Your task to perform on an android device: Open Android settings Image 0: 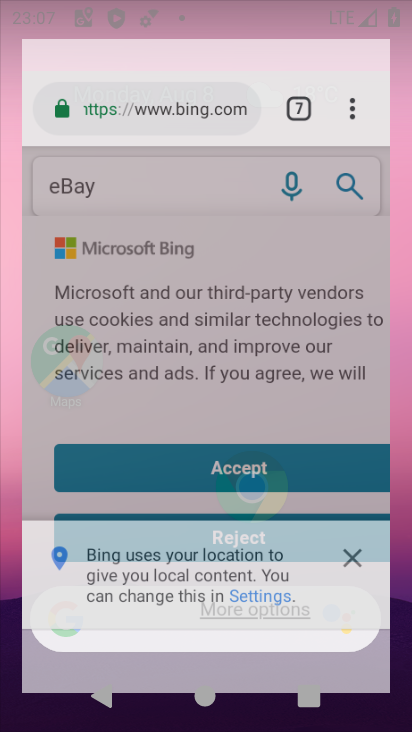
Step 0: drag from (201, 569) to (199, 223)
Your task to perform on an android device: Open Android settings Image 1: 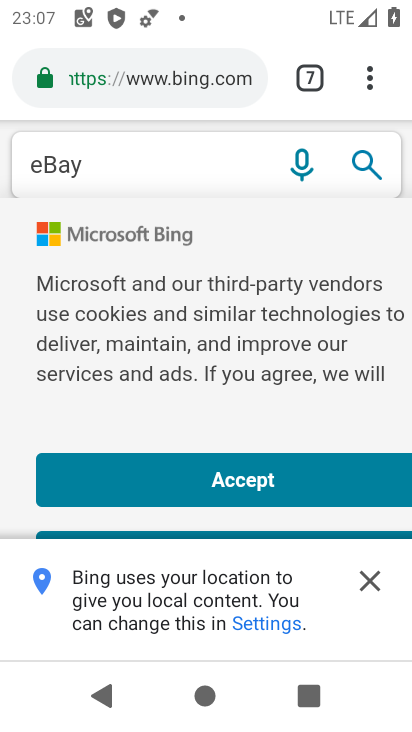
Step 1: press home button
Your task to perform on an android device: Open Android settings Image 2: 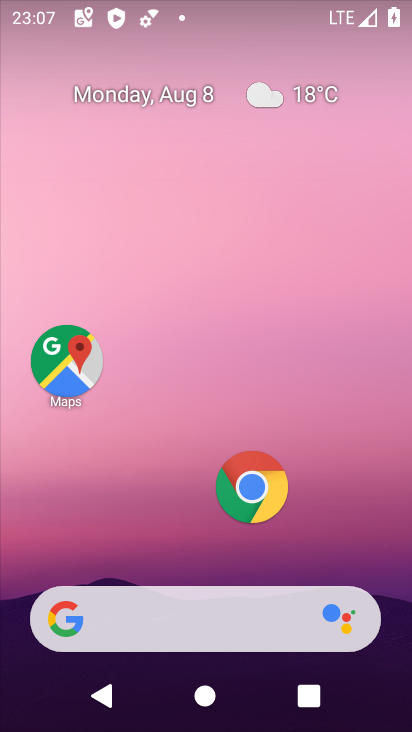
Step 2: drag from (205, 576) to (248, 202)
Your task to perform on an android device: Open Android settings Image 3: 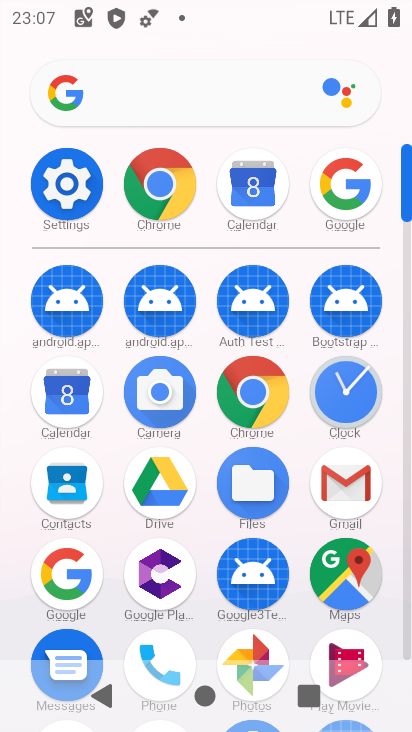
Step 3: click (65, 184)
Your task to perform on an android device: Open Android settings Image 4: 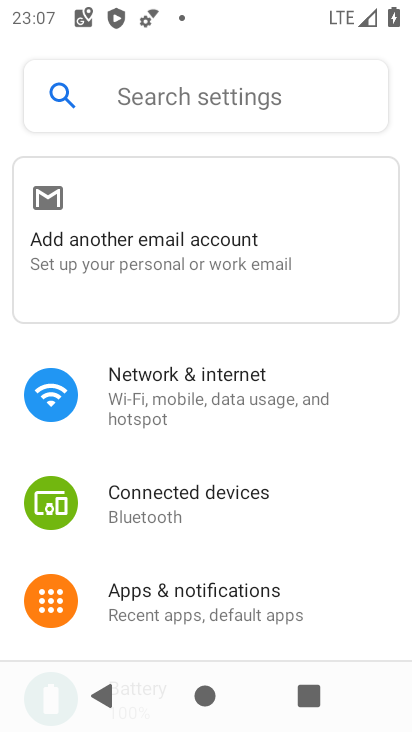
Step 4: task complete